Your task to perform on an android device: Toggle the flashlight Image 0: 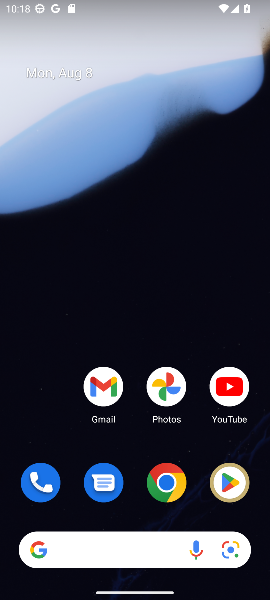
Step 0: drag from (133, 459) to (165, 7)
Your task to perform on an android device: Toggle the flashlight Image 1: 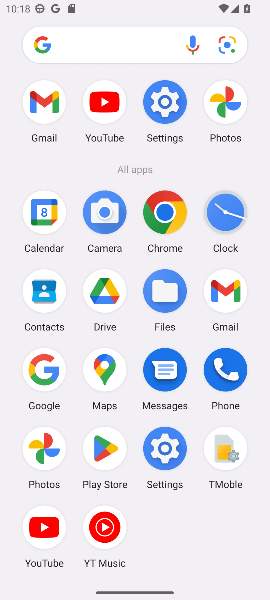
Step 1: click (159, 87)
Your task to perform on an android device: Toggle the flashlight Image 2: 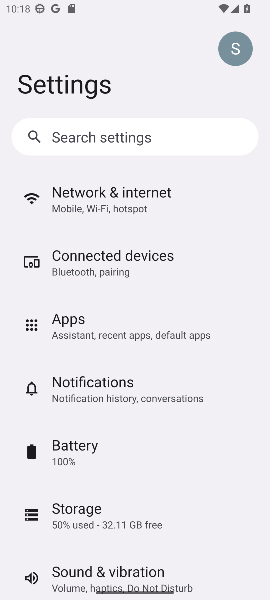
Step 2: task complete